Your task to perform on an android device: snooze an email in the gmail app Image 0: 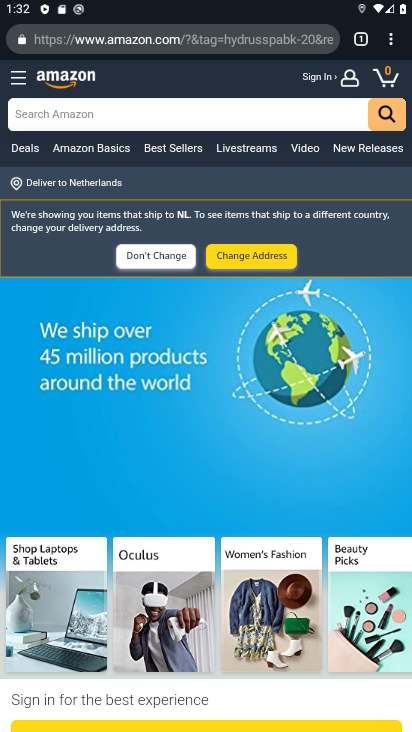
Step 0: press home button
Your task to perform on an android device: snooze an email in the gmail app Image 1: 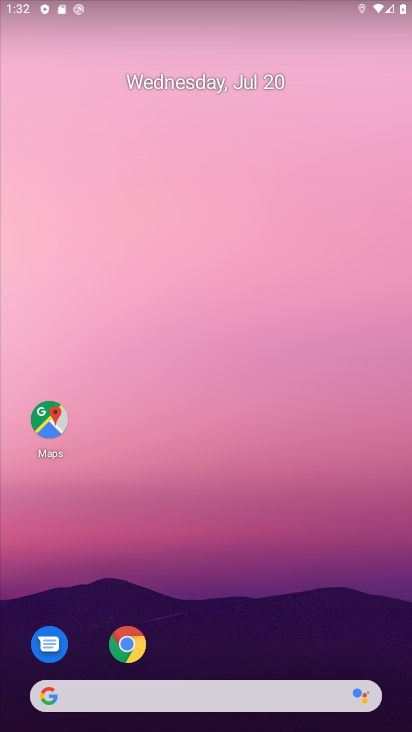
Step 1: drag from (265, 592) to (138, 96)
Your task to perform on an android device: snooze an email in the gmail app Image 2: 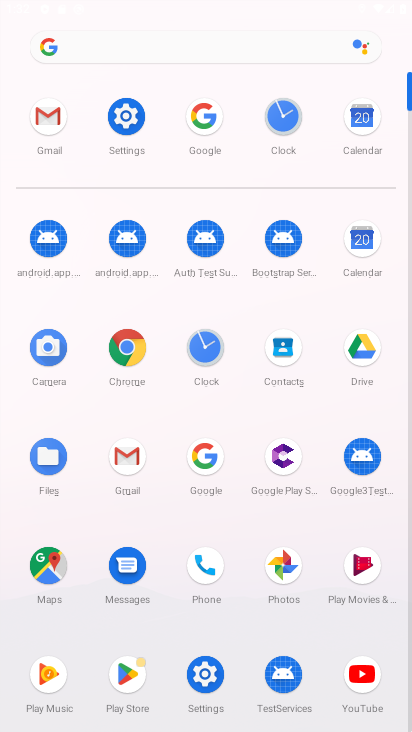
Step 2: click (55, 110)
Your task to perform on an android device: snooze an email in the gmail app Image 3: 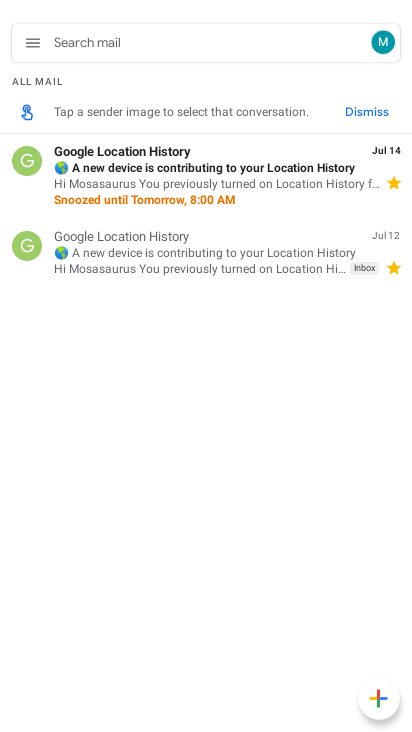
Step 3: click (222, 246)
Your task to perform on an android device: snooze an email in the gmail app Image 4: 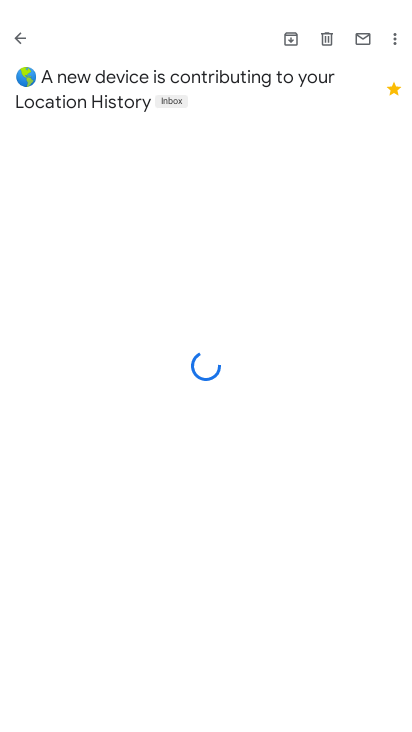
Step 4: click (397, 42)
Your task to perform on an android device: snooze an email in the gmail app Image 5: 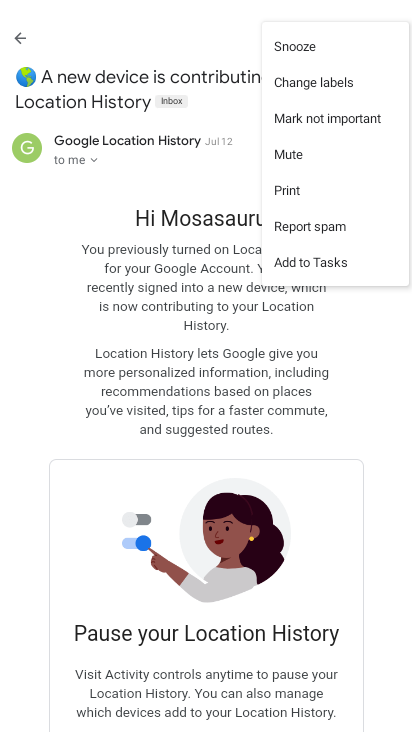
Step 5: click (321, 52)
Your task to perform on an android device: snooze an email in the gmail app Image 6: 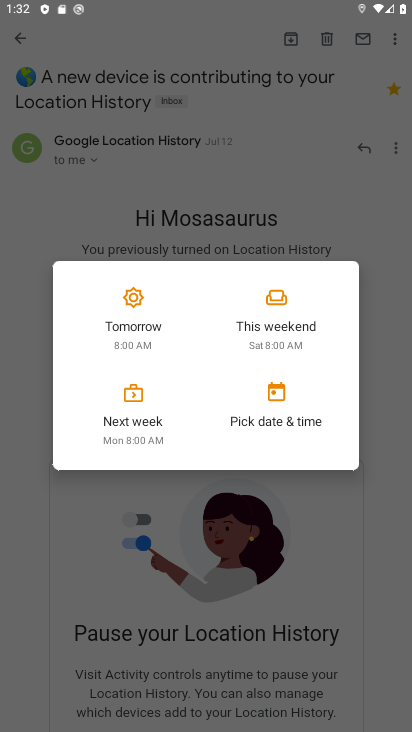
Step 6: click (158, 325)
Your task to perform on an android device: snooze an email in the gmail app Image 7: 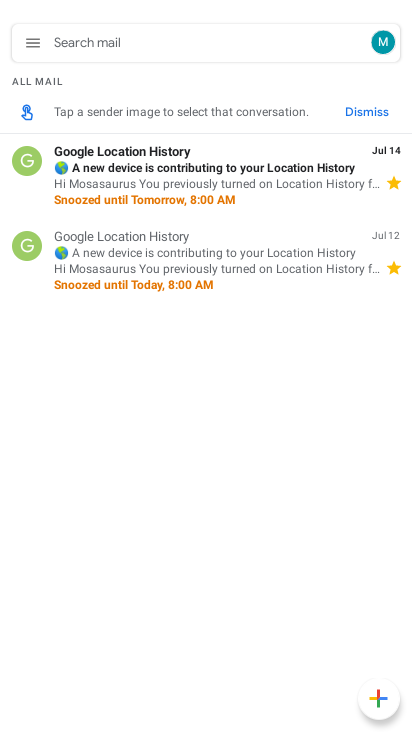
Step 7: task complete